Your task to perform on an android device: Go to Reddit.com Image 0: 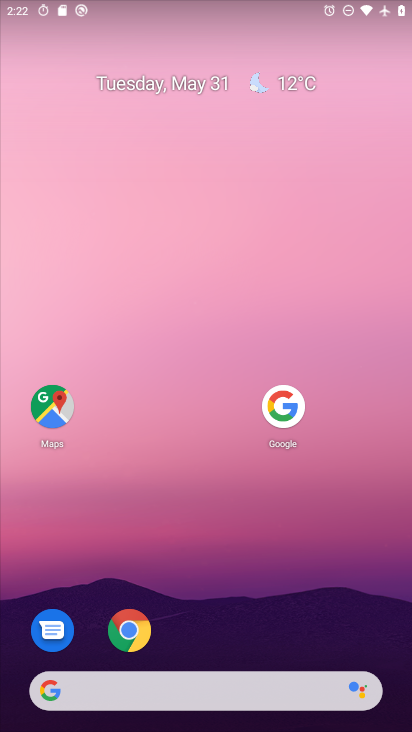
Step 0: click (133, 642)
Your task to perform on an android device: Go to Reddit.com Image 1: 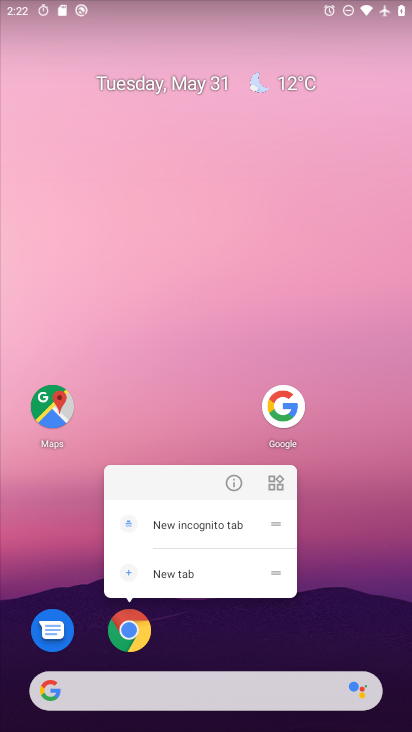
Step 1: click (132, 630)
Your task to perform on an android device: Go to Reddit.com Image 2: 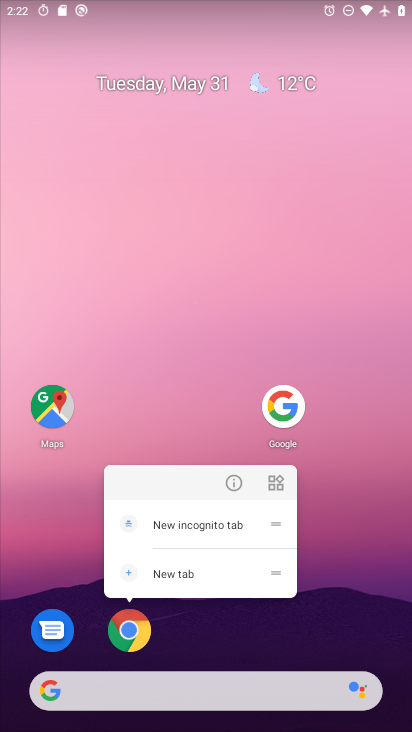
Step 2: click (129, 633)
Your task to perform on an android device: Go to Reddit.com Image 3: 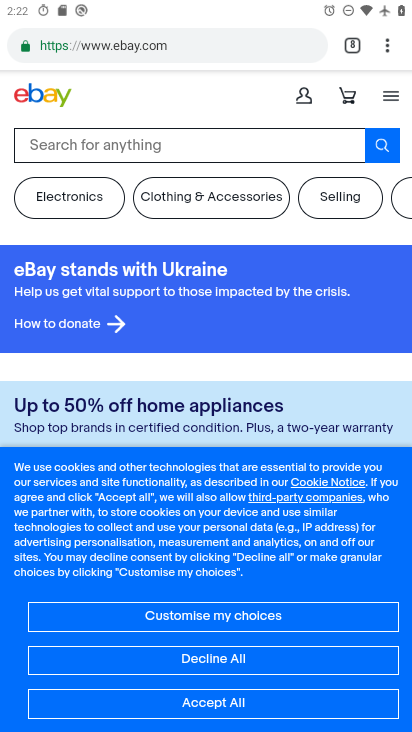
Step 3: drag from (385, 48) to (253, 151)
Your task to perform on an android device: Go to Reddit.com Image 4: 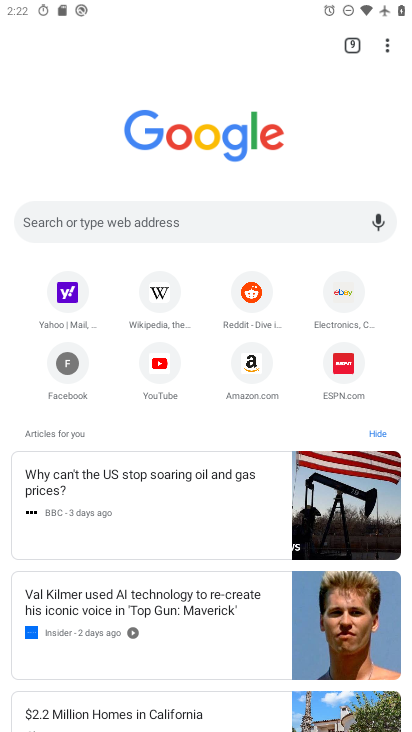
Step 4: click (248, 295)
Your task to perform on an android device: Go to Reddit.com Image 5: 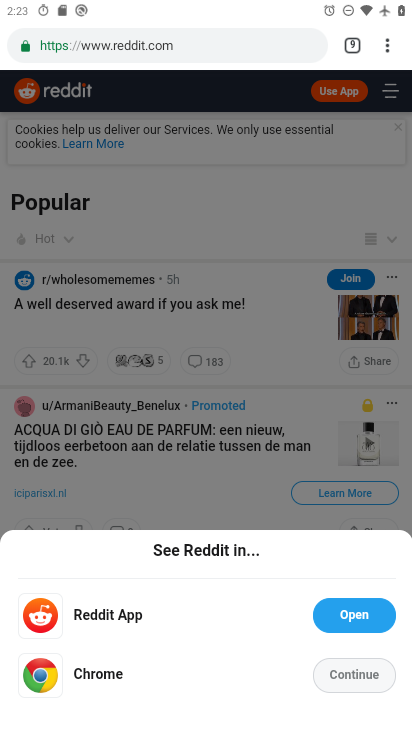
Step 5: task complete